Your task to perform on an android device: Open Amazon Image 0: 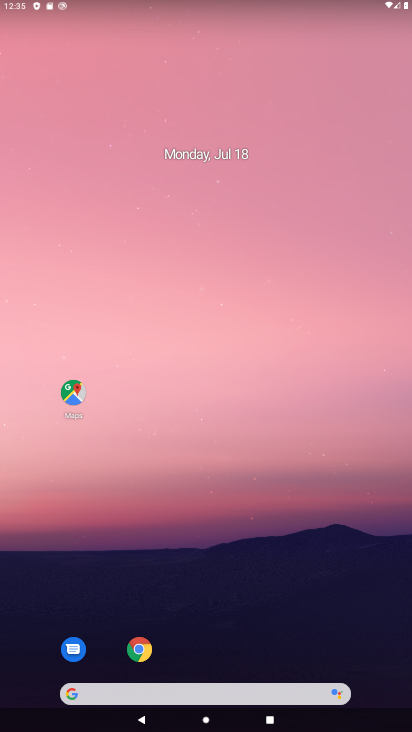
Step 0: click (121, 700)
Your task to perform on an android device: Open Amazon Image 1: 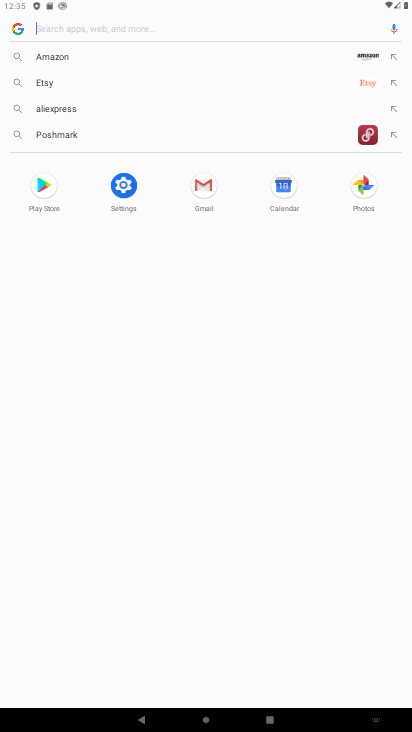
Step 1: click (58, 60)
Your task to perform on an android device: Open Amazon Image 2: 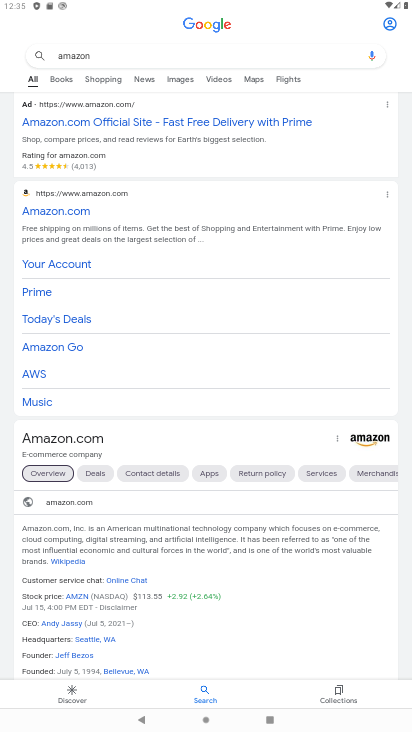
Step 2: task complete